Your task to perform on an android device: Open Google Maps Image 0: 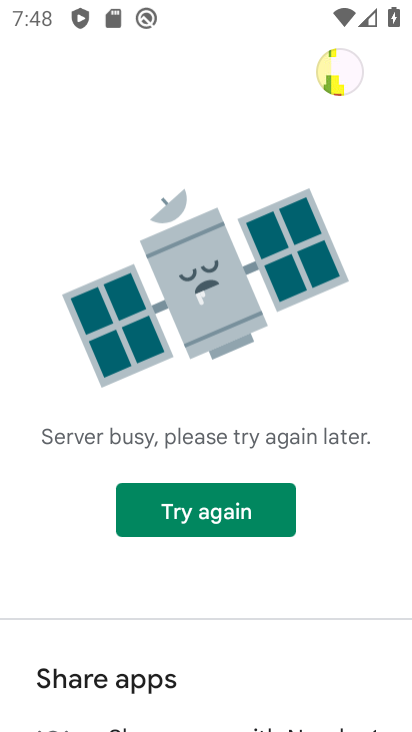
Step 0: press home button
Your task to perform on an android device: Open Google Maps Image 1: 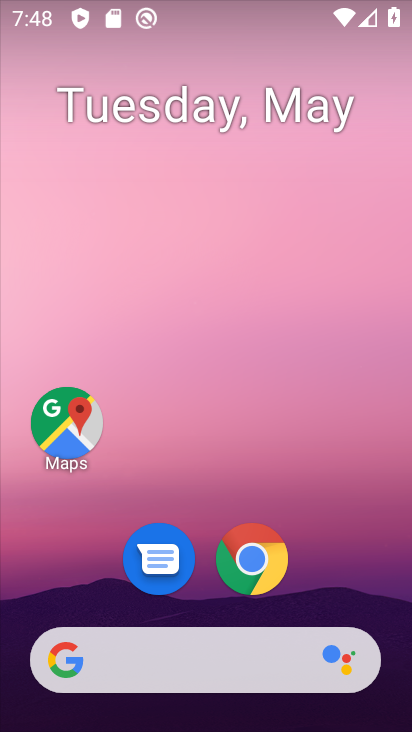
Step 1: drag from (366, 586) to (372, 244)
Your task to perform on an android device: Open Google Maps Image 2: 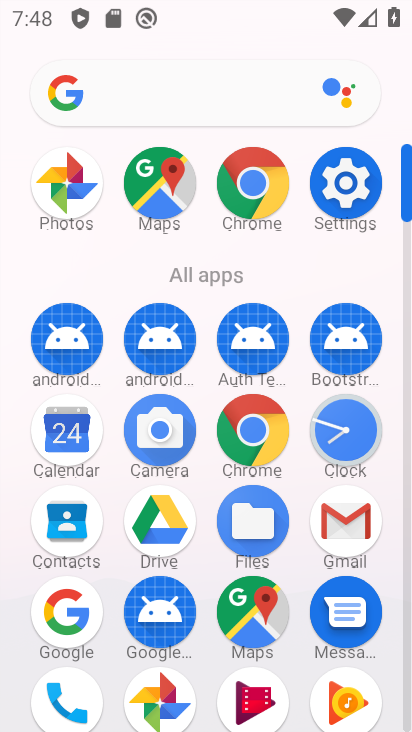
Step 2: drag from (398, 642) to (396, 396)
Your task to perform on an android device: Open Google Maps Image 3: 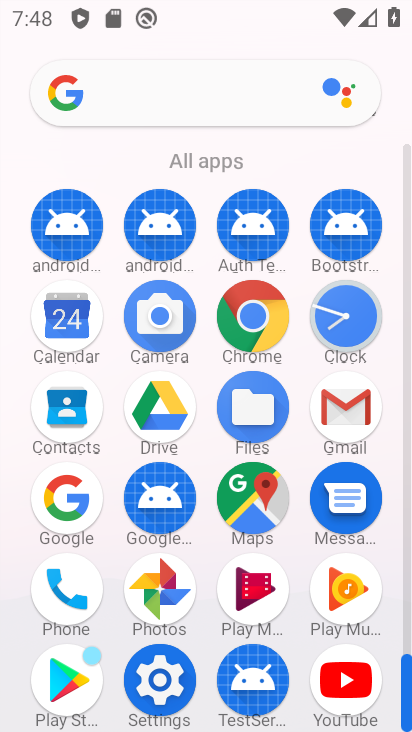
Step 3: click (256, 507)
Your task to perform on an android device: Open Google Maps Image 4: 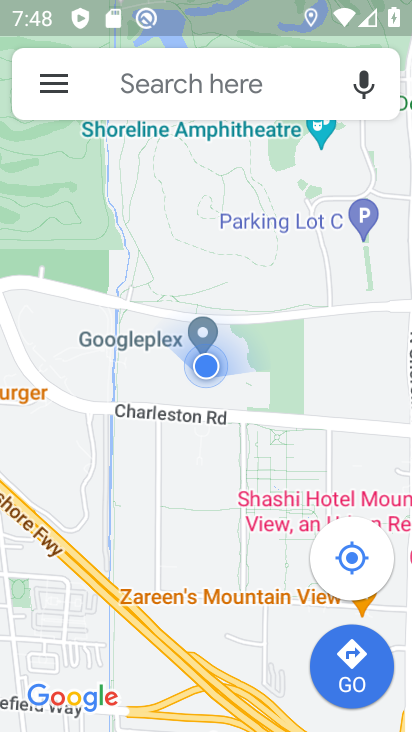
Step 4: task complete